Your task to perform on an android device: Set the phone to "Do not disturb". Image 0: 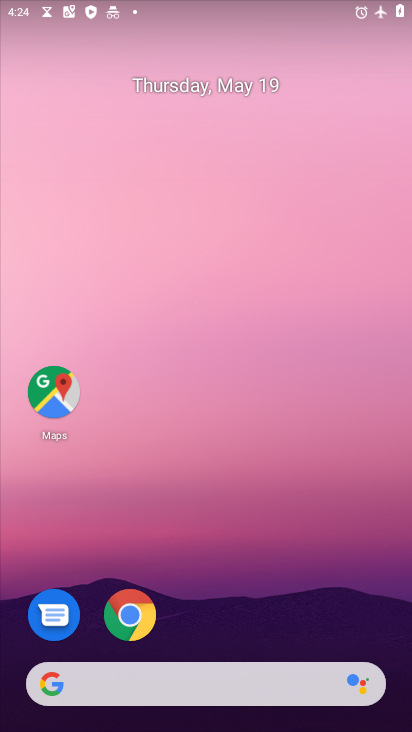
Step 0: drag from (391, 617) to (209, 97)
Your task to perform on an android device: Set the phone to "Do not disturb". Image 1: 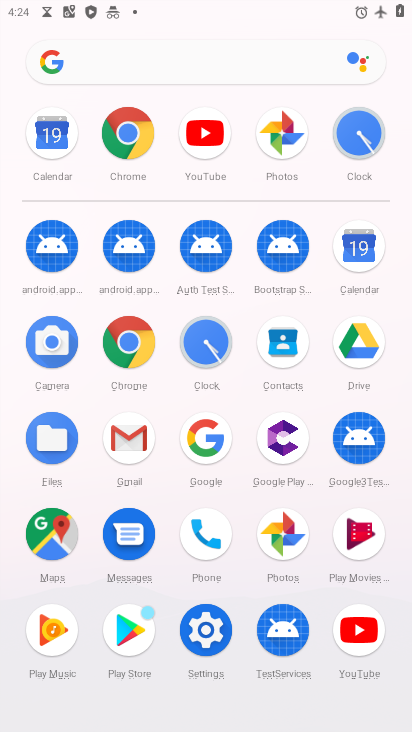
Step 1: click (120, 343)
Your task to perform on an android device: Set the phone to "Do not disturb". Image 2: 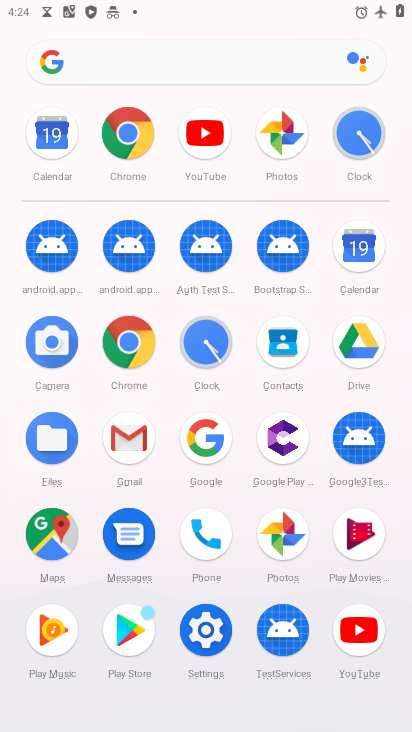
Step 2: click (121, 344)
Your task to perform on an android device: Set the phone to "Do not disturb". Image 3: 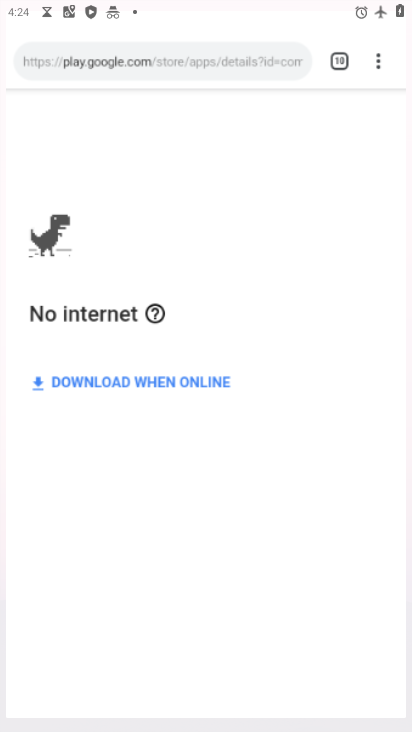
Step 3: click (121, 344)
Your task to perform on an android device: Set the phone to "Do not disturb". Image 4: 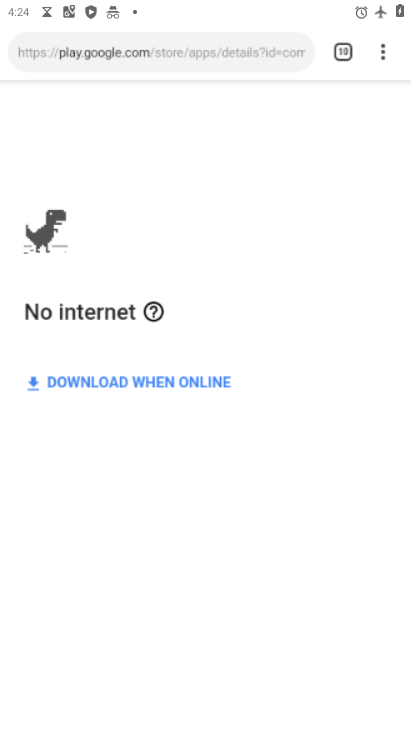
Step 4: click (120, 342)
Your task to perform on an android device: Set the phone to "Do not disturb". Image 5: 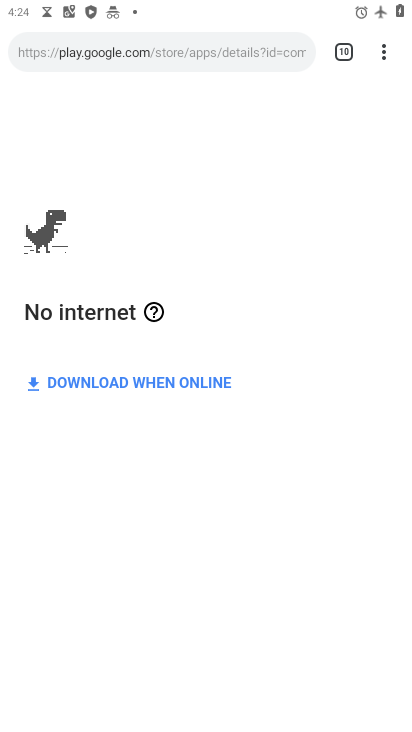
Step 5: press back button
Your task to perform on an android device: Set the phone to "Do not disturb". Image 6: 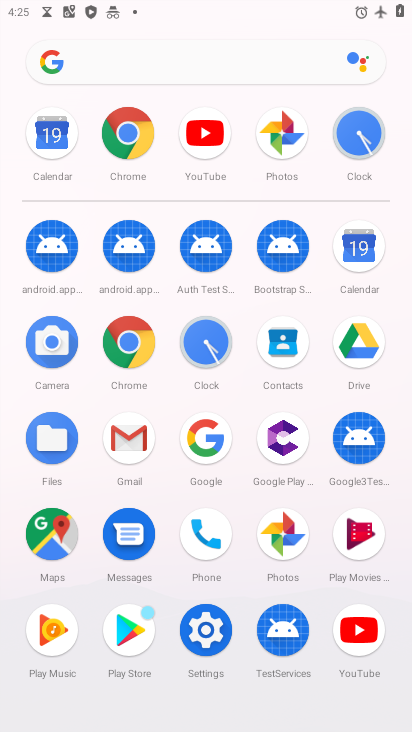
Step 6: click (118, 346)
Your task to perform on an android device: Set the phone to "Do not disturb". Image 7: 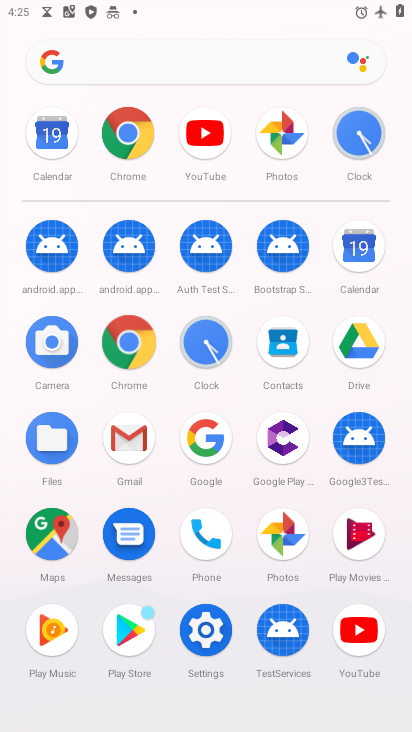
Step 7: click (118, 346)
Your task to perform on an android device: Set the phone to "Do not disturb". Image 8: 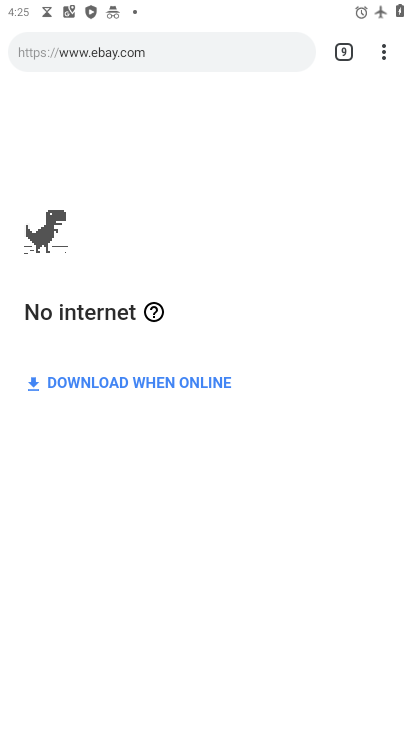
Step 8: task complete